Your task to perform on an android device: open device folders in google photos Image 0: 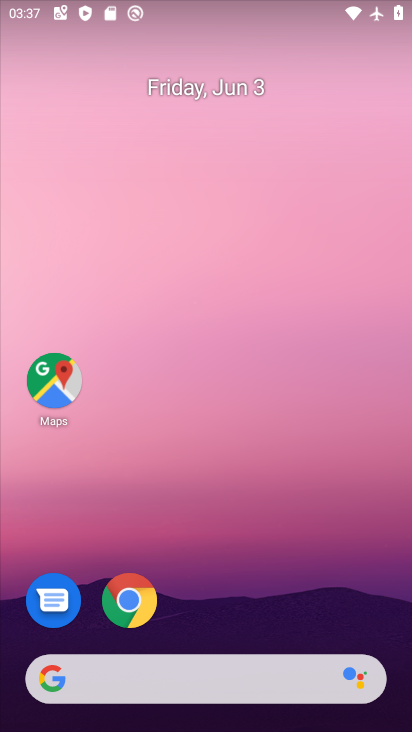
Step 0: drag from (221, 617) to (210, 6)
Your task to perform on an android device: open device folders in google photos Image 1: 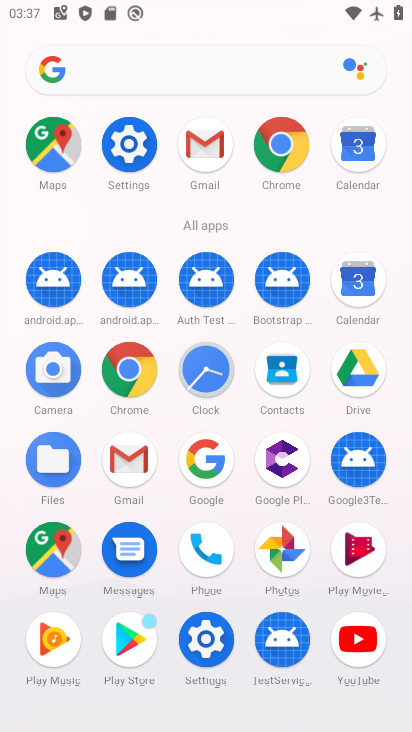
Step 1: click (288, 551)
Your task to perform on an android device: open device folders in google photos Image 2: 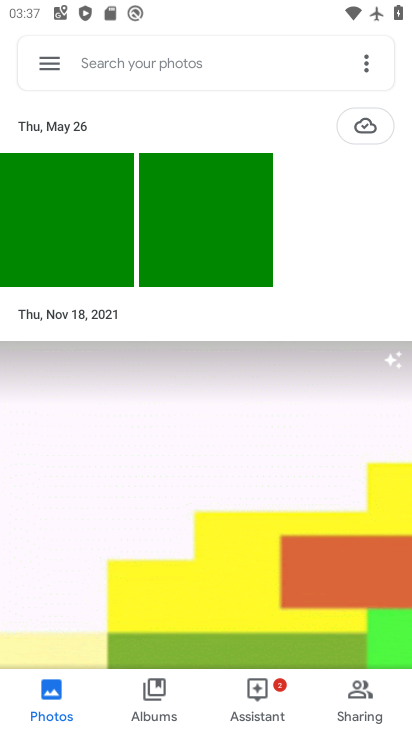
Step 2: click (48, 54)
Your task to perform on an android device: open device folders in google photos Image 3: 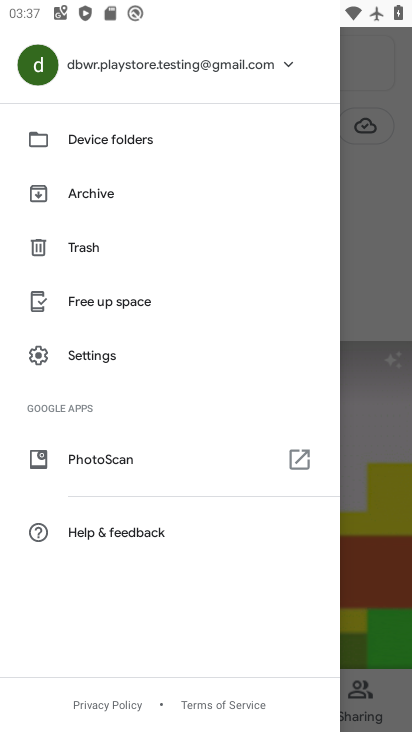
Step 3: click (135, 143)
Your task to perform on an android device: open device folders in google photos Image 4: 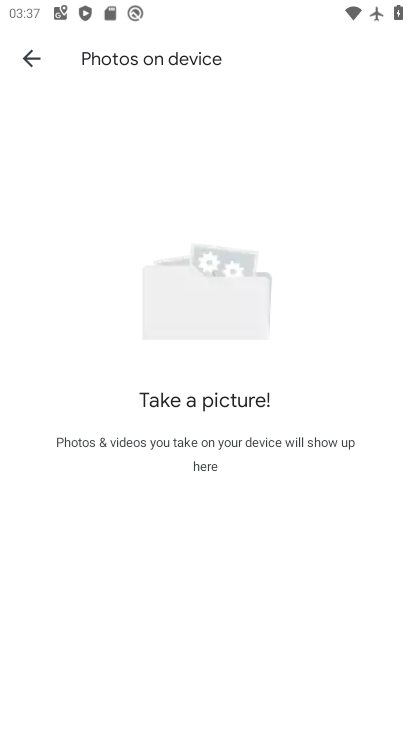
Step 4: task complete